Your task to perform on an android device: Install the Twitter app Image 0: 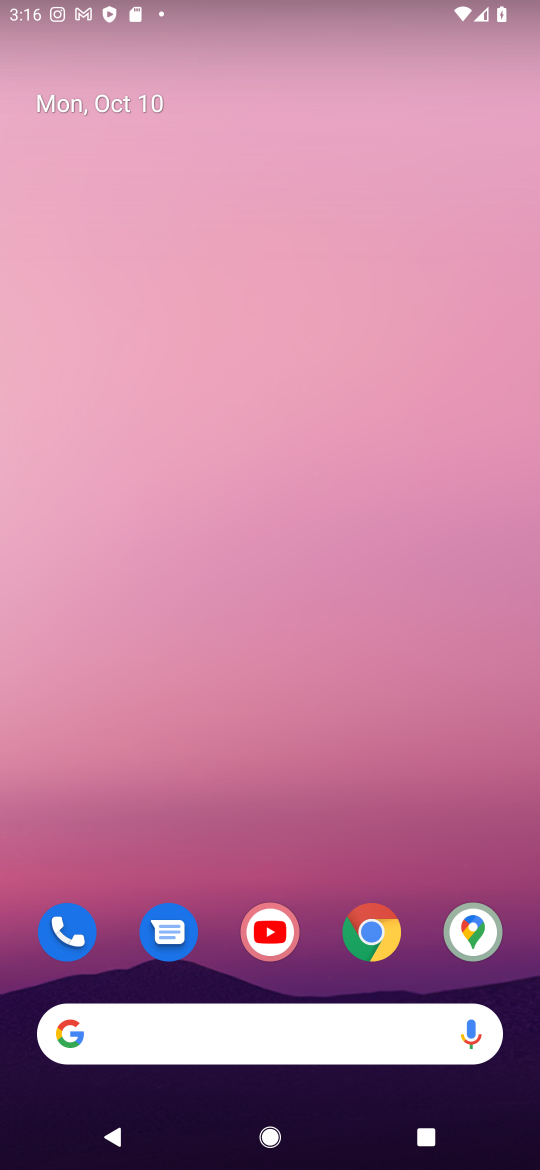
Step 0: press home button
Your task to perform on an android device: Install the Twitter app Image 1: 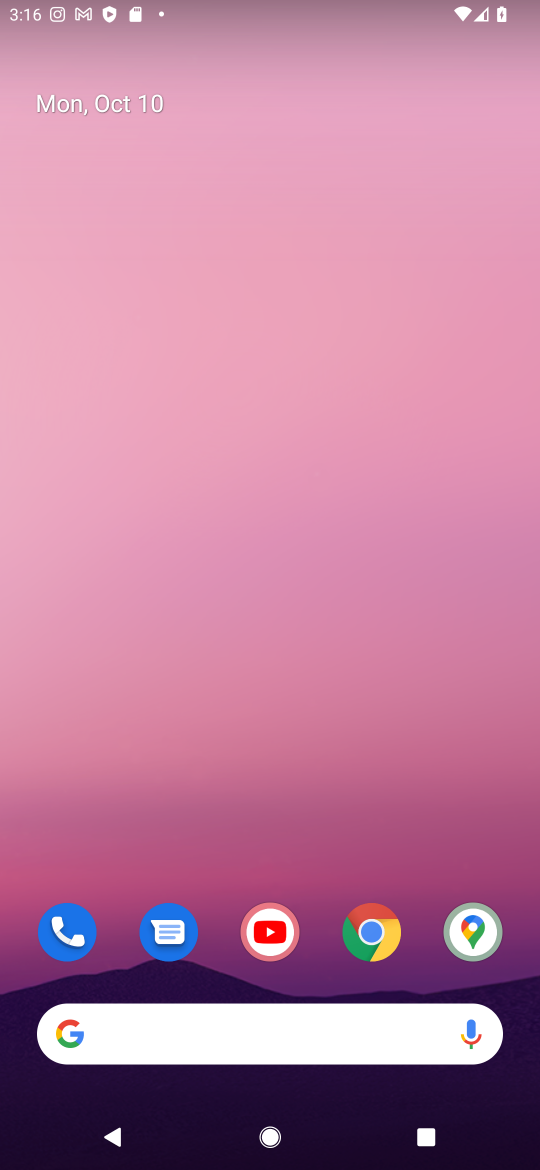
Step 1: drag from (494, 828) to (475, 106)
Your task to perform on an android device: Install the Twitter app Image 2: 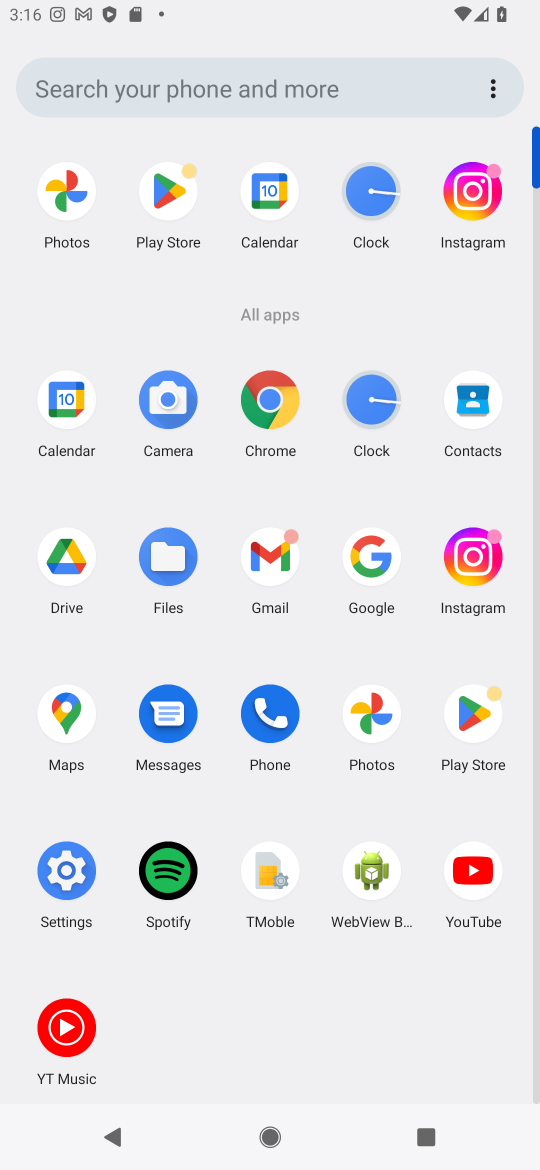
Step 2: click (467, 727)
Your task to perform on an android device: Install the Twitter app Image 3: 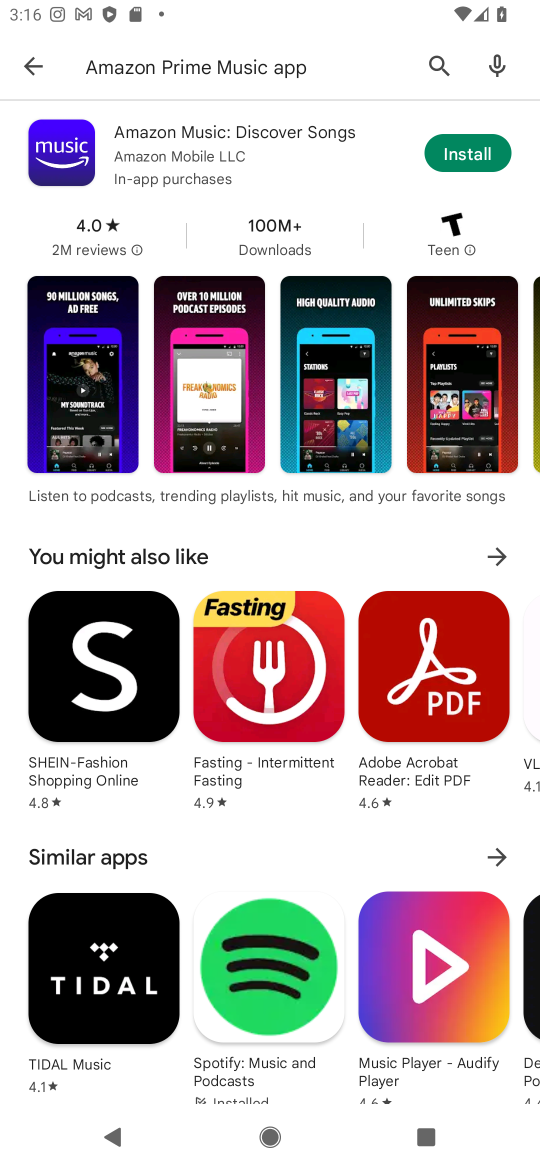
Step 3: press back button
Your task to perform on an android device: Install the Twitter app Image 4: 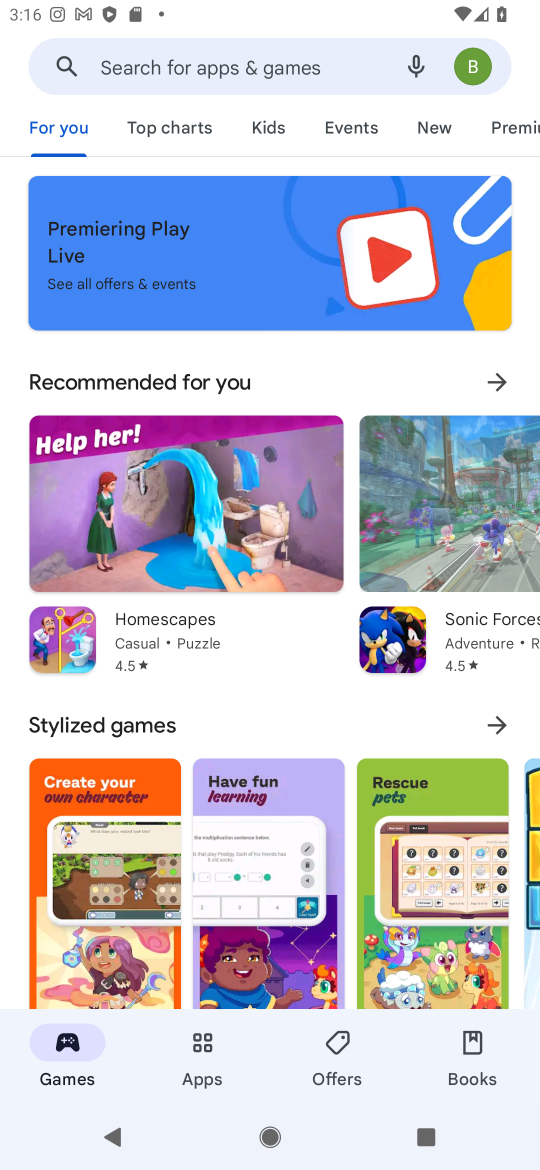
Step 4: click (297, 71)
Your task to perform on an android device: Install the Twitter app Image 5: 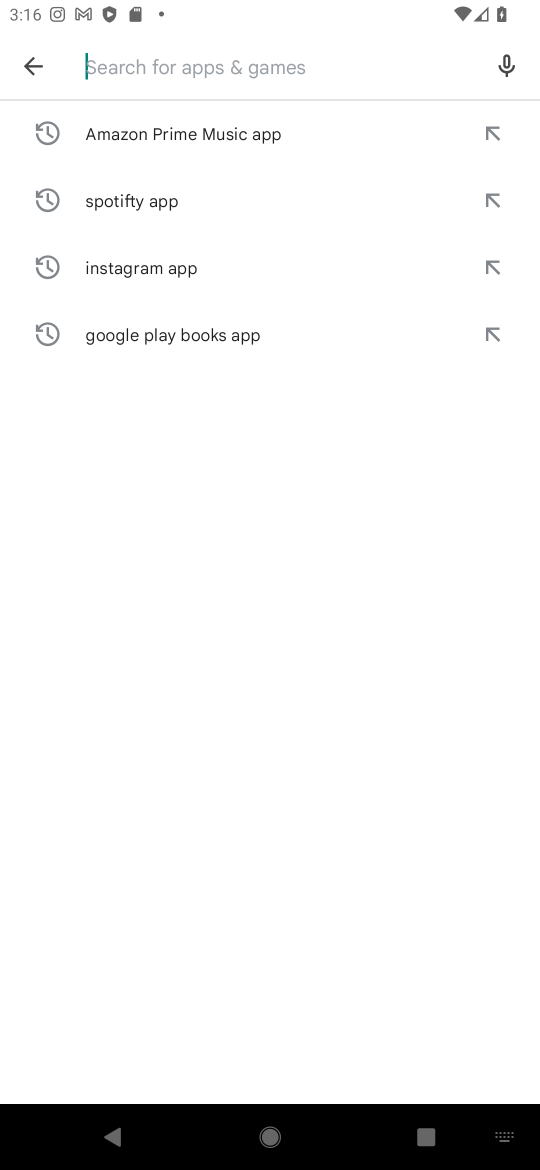
Step 5: type "twitter app"
Your task to perform on an android device: Install the Twitter app Image 6: 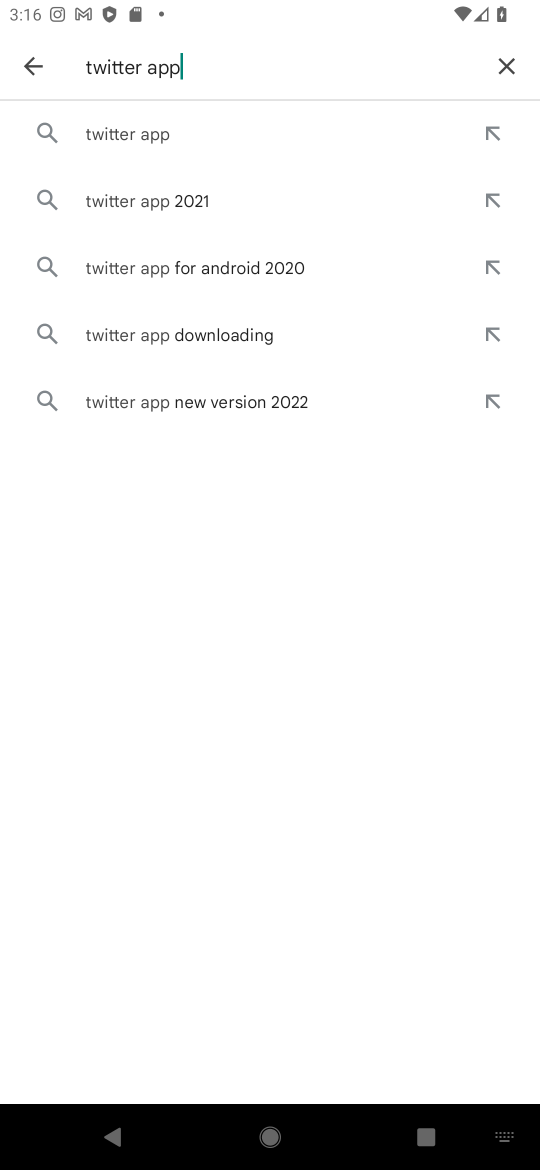
Step 6: click (139, 131)
Your task to perform on an android device: Install the Twitter app Image 7: 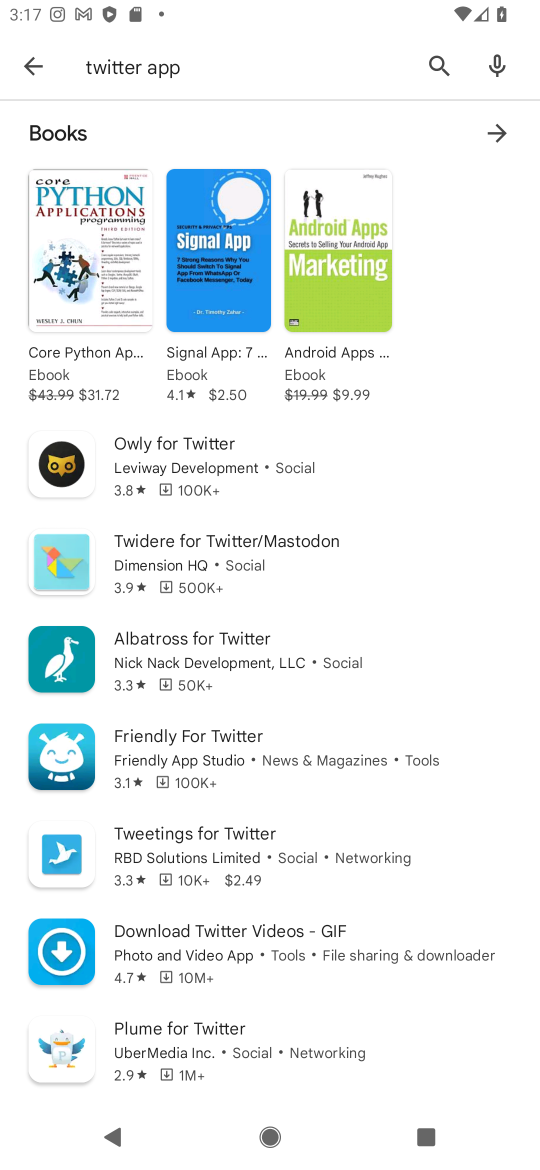
Step 7: task complete